Your task to perform on an android device: toggle data saver in the chrome app Image 0: 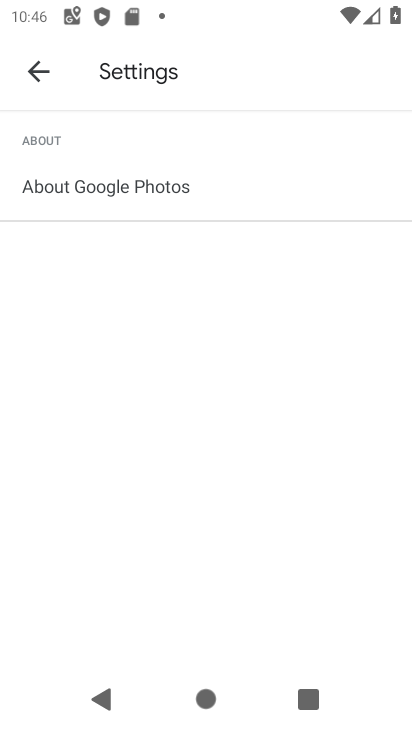
Step 0: press home button
Your task to perform on an android device: toggle data saver in the chrome app Image 1: 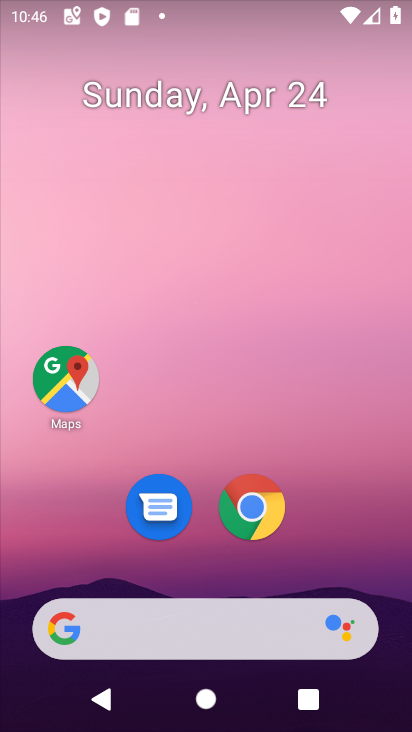
Step 1: click (273, 505)
Your task to perform on an android device: toggle data saver in the chrome app Image 2: 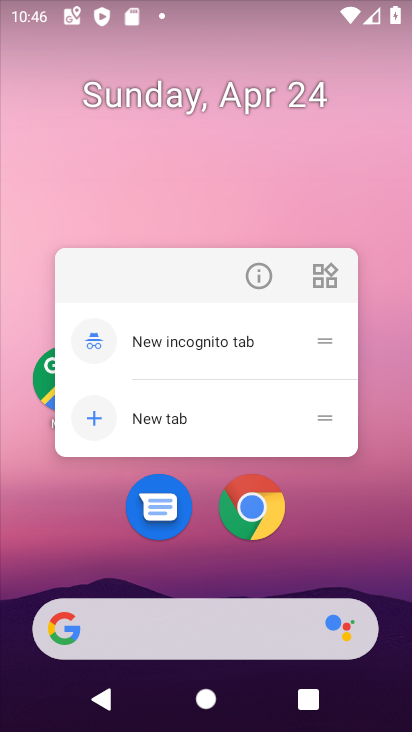
Step 2: click (264, 523)
Your task to perform on an android device: toggle data saver in the chrome app Image 3: 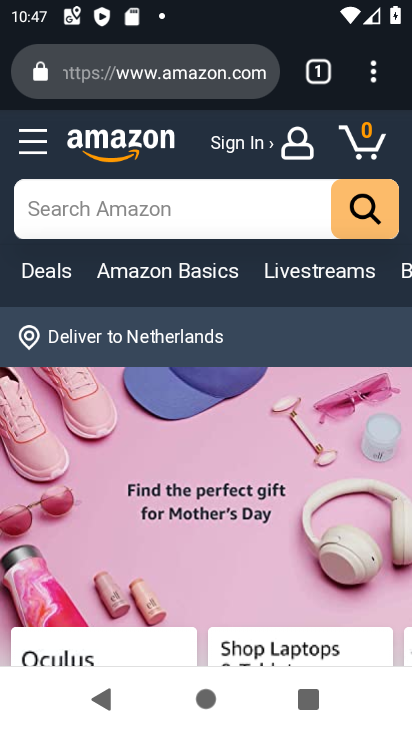
Step 3: click (389, 66)
Your task to perform on an android device: toggle data saver in the chrome app Image 4: 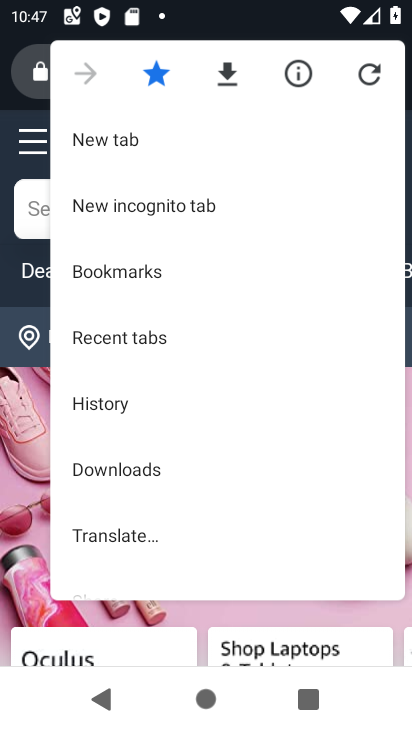
Step 4: drag from (233, 513) to (245, 278)
Your task to perform on an android device: toggle data saver in the chrome app Image 5: 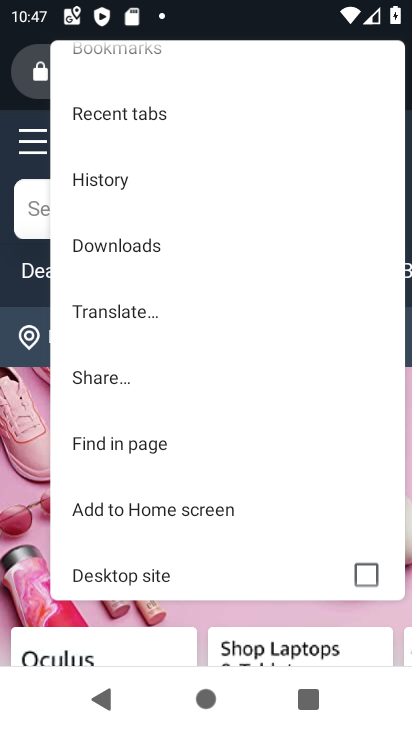
Step 5: drag from (175, 565) to (201, 291)
Your task to perform on an android device: toggle data saver in the chrome app Image 6: 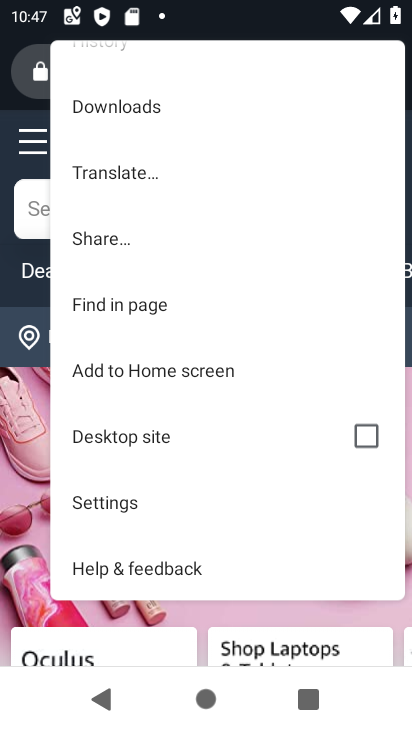
Step 6: click (196, 497)
Your task to perform on an android device: toggle data saver in the chrome app Image 7: 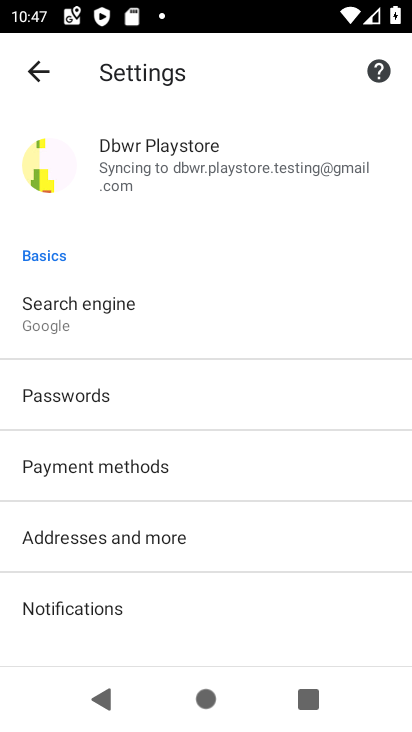
Step 7: drag from (237, 607) to (260, 249)
Your task to perform on an android device: toggle data saver in the chrome app Image 8: 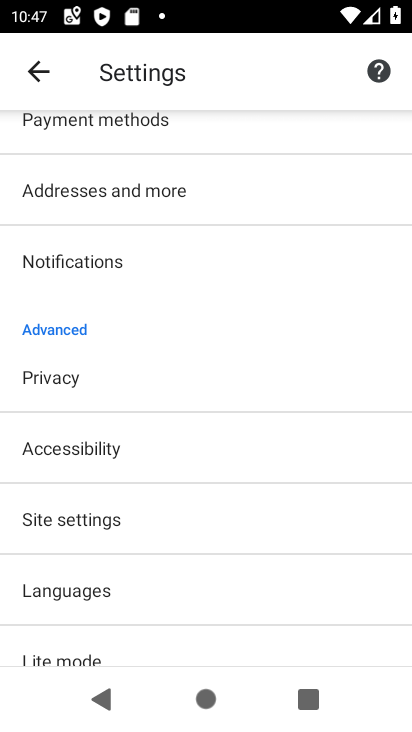
Step 8: drag from (241, 549) to (246, 375)
Your task to perform on an android device: toggle data saver in the chrome app Image 9: 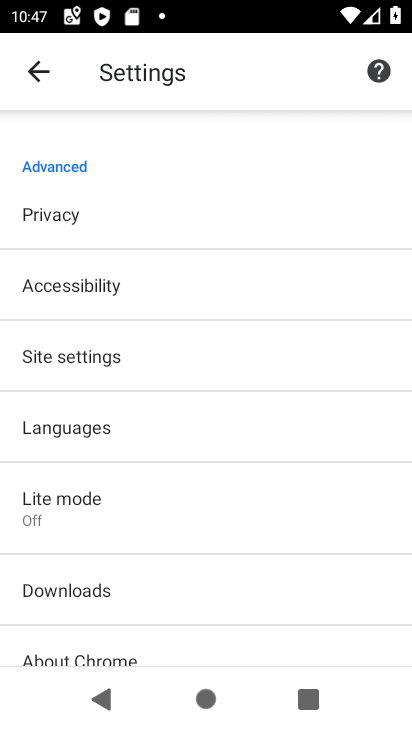
Step 9: drag from (214, 653) to (226, 437)
Your task to perform on an android device: toggle data saver in the chrome app Image 10: 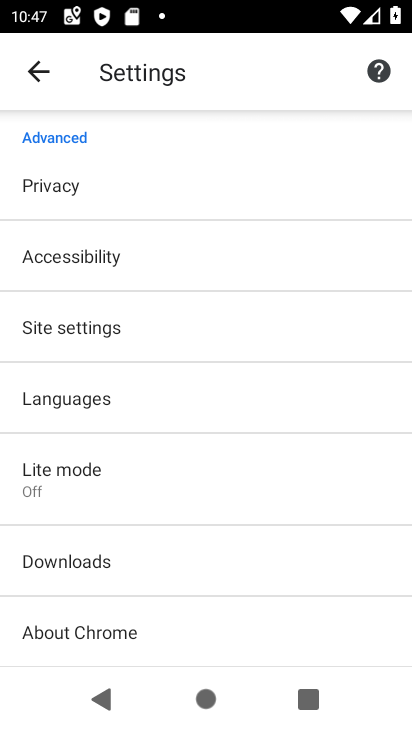
Step 10: click (145, 469)
Your task to perform on an android device: toggle data saver in the chrome app Image 11: 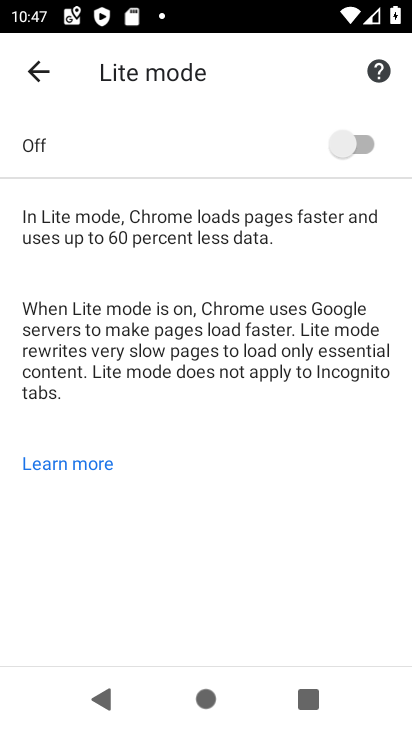
Step 11: click (367, 151)
Your task to perform on an android device: toggle data saver in the chrome app Image 12: 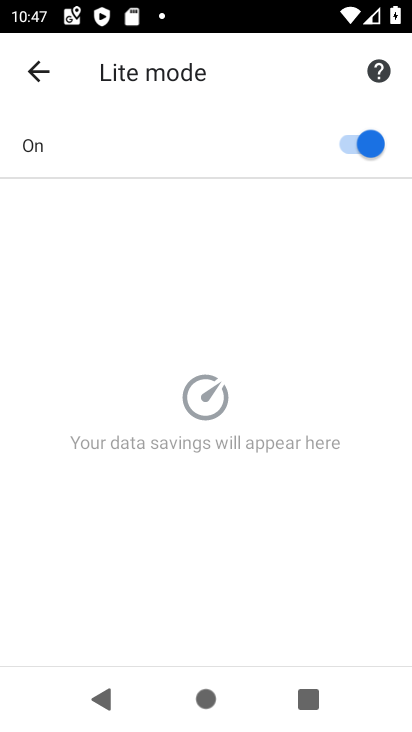
Step 12: task complete